Your task to perform on an android device: Turn on the flashlight Image 0: 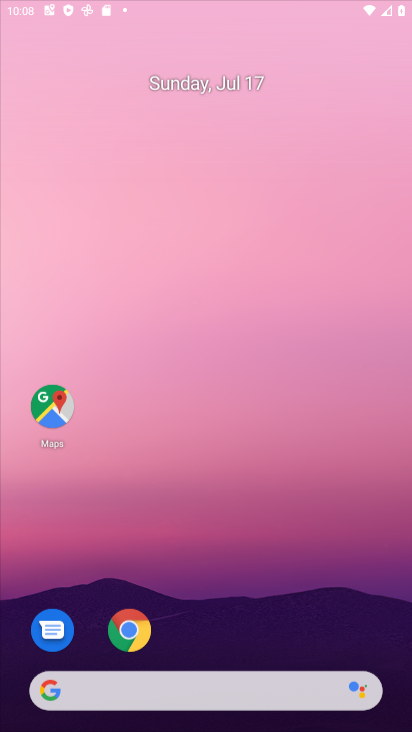
Step 0: drag from (236, 641) to (204, 76)
Your task to perform on an android device: Turn on the flashlight Image 1: 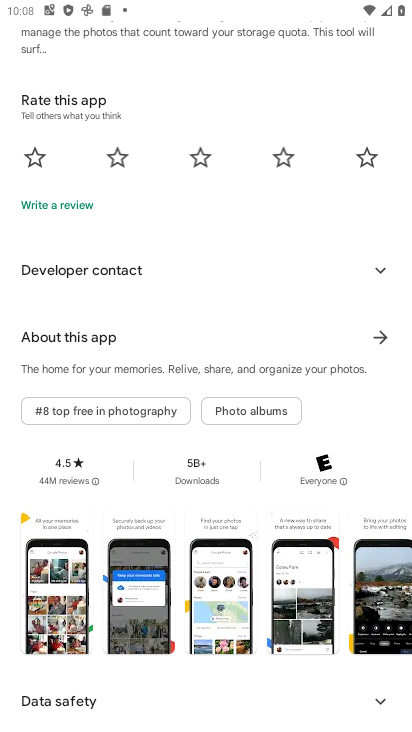
Step 1: press home button
Your task to perform on an android device: Turn on the flashlight Image 2: 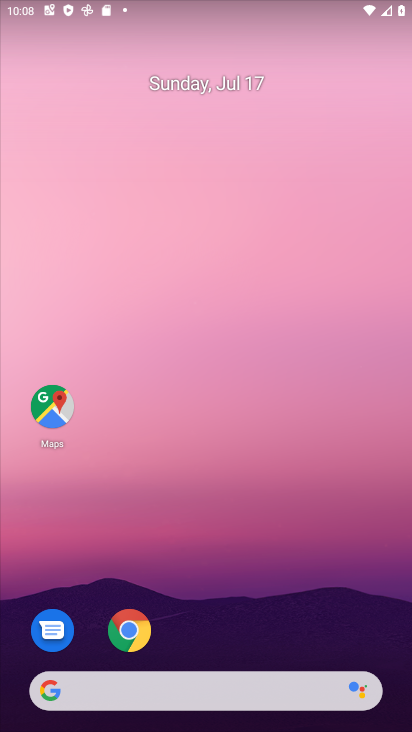
Step 2: drag from (249, 663) to (277, 164)
Your task to perform on an android device: Turn on the flashlight Image 3: 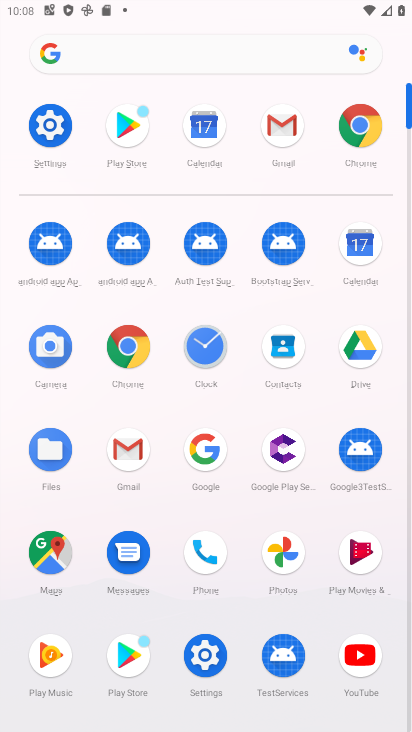
Step 3: click (203, 677)
Your task to perform on an android device: Turn on the flashlight Image 4: 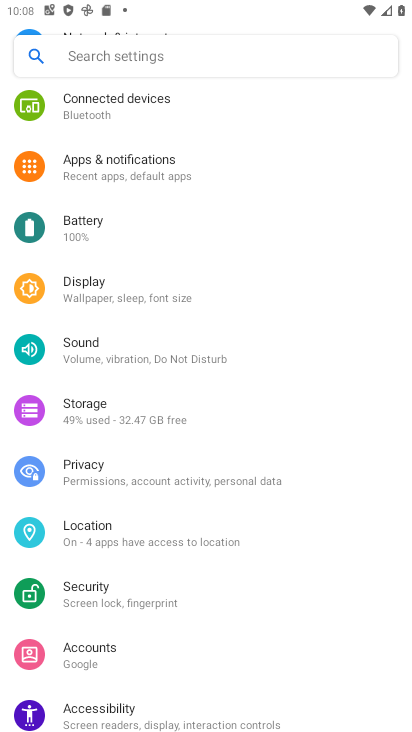
Step 4: drag from (127, 218) to (161, 349)
Your task to perform on an android device: Turn on the flashlight Image 5: 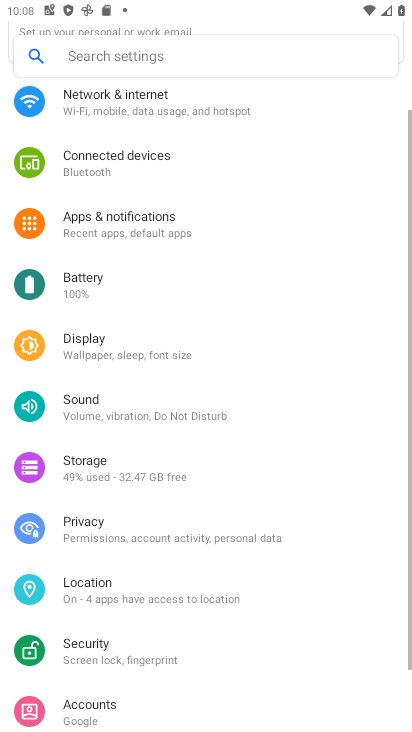
Step 5: click (161, 349)
Your task to perform on an android device: Turn on the flashlight Image 6: 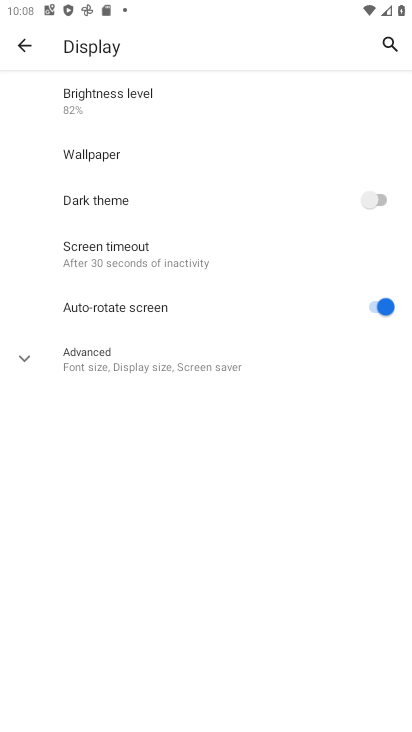
Step 6: task complete